Your task to perform on an android device: change timer sound Image 0: 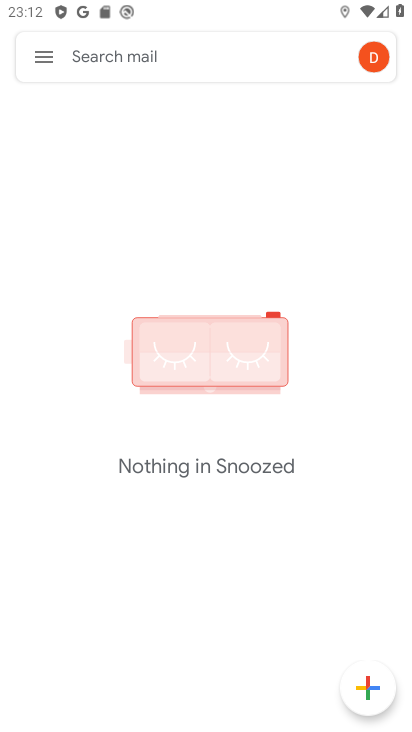
Step 0: press home button
Your task to perform on an android device: change timer sound Image 1: 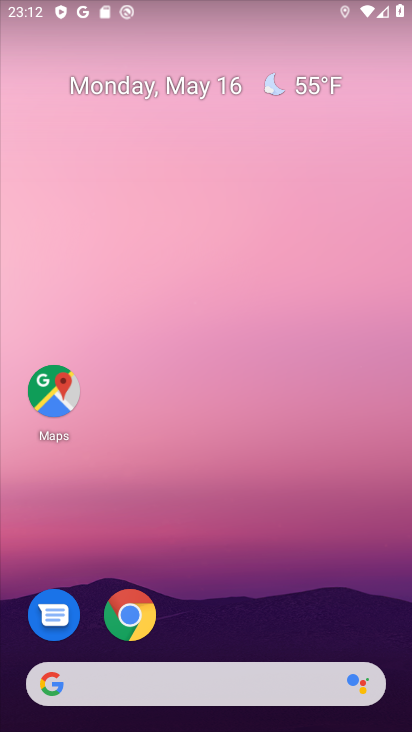
Step 1: drag from (211, 653) to (203, 32)
Your task to perform on an android device: change timer sound Image 2: 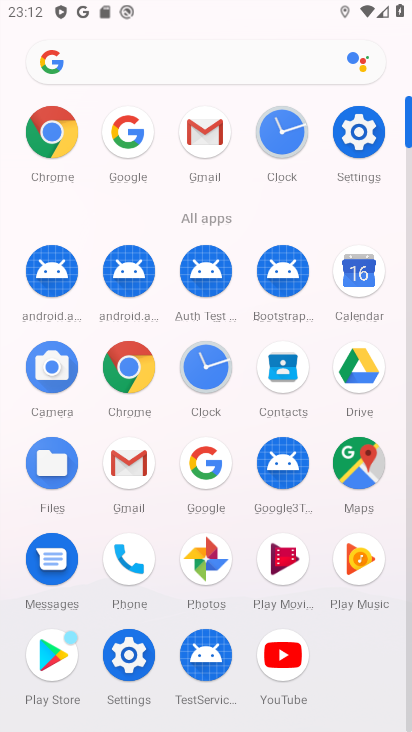
Step 2: click (207, 365)
Your task to perform on an android device: change timer sound Image 3: 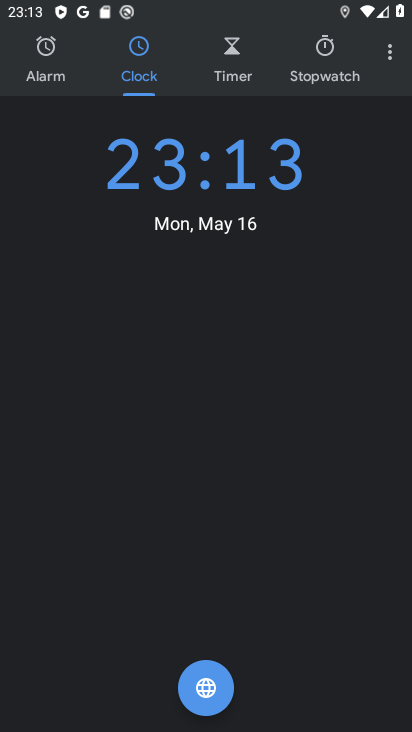
Step 3: click (386, 60)
Your task to perform on an android device: change timer sound Image 4: 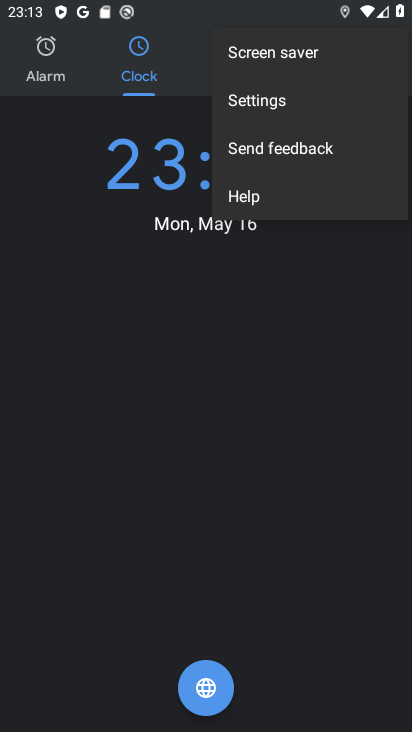
Step 4: click (276, 93)
Your task to perform on an android device: change timer sound Image 5: 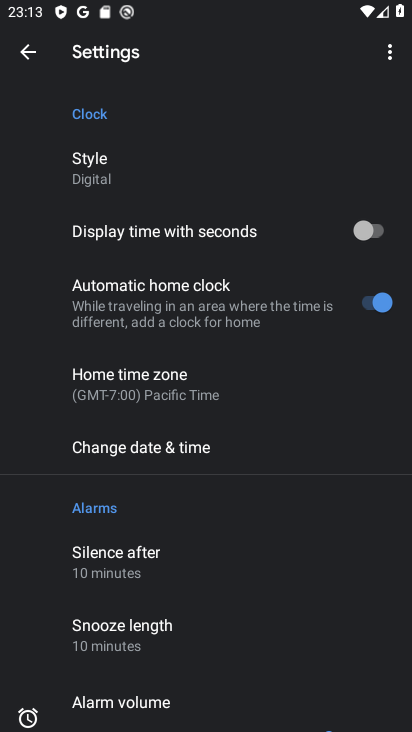
Step 5: drag from (182, 677) to (196, 61)
Your task to perform on an android device: change timer sound Image 6: 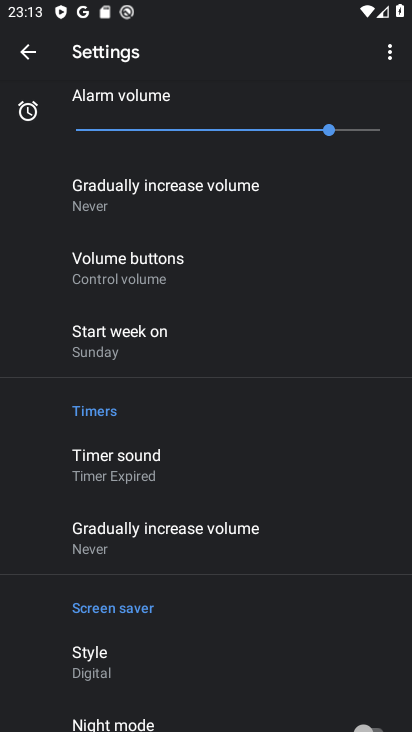
Step 6: click (136, 444)
Your task to perform on an android device: change timer sound Image 7: 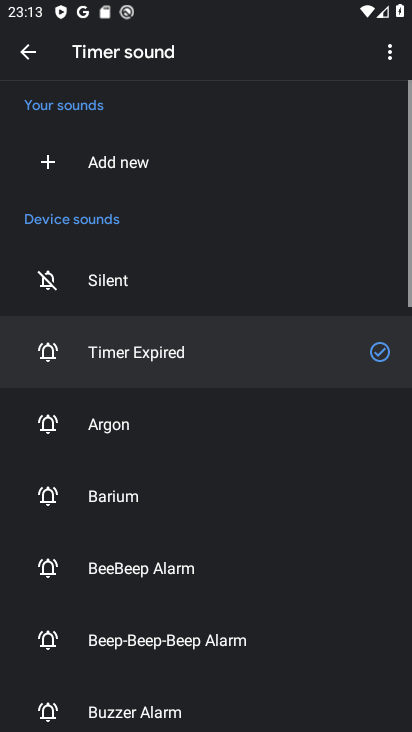
Step 7: click (136, 444)
Your task to perform on an android device: change timer sound Image 8: 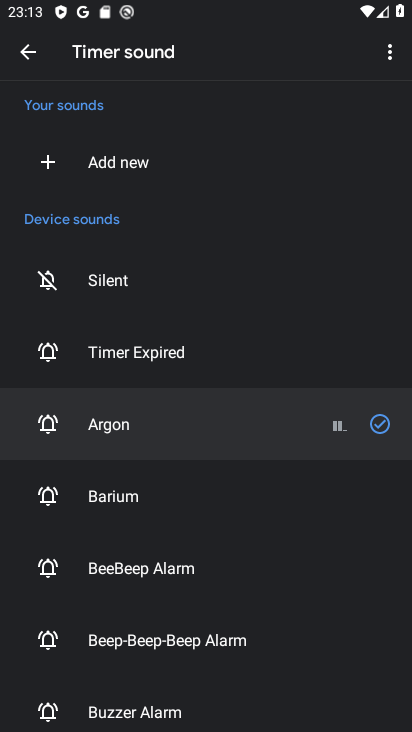
Step 8: task complete